Your task to perform on an android device: delete the emails in spam in the gmail app Image 0: 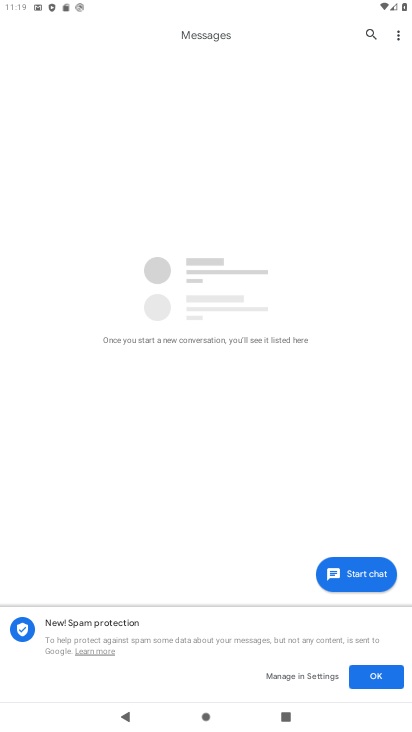
Step 0: press home button
Your task to perform on an android device: delete the emails in spam in the gmail app Image 1: 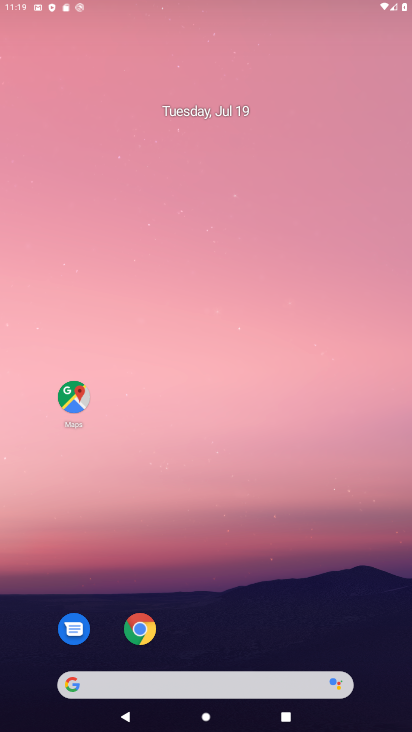
Step 1: drag from (273, 620) to (183, 17)
Your task to perform on an android device: delete the emails in spam in the gmail app Image 2: 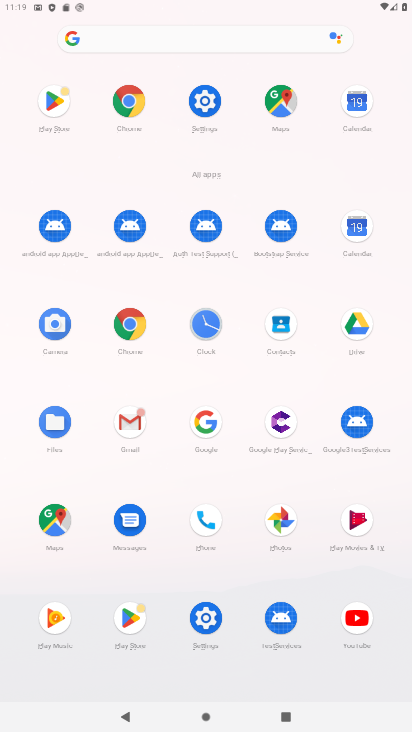
Step 2: click (130, 421)
Your task to perform on an android device: delete the emails in spam in the gmail app Image 3: 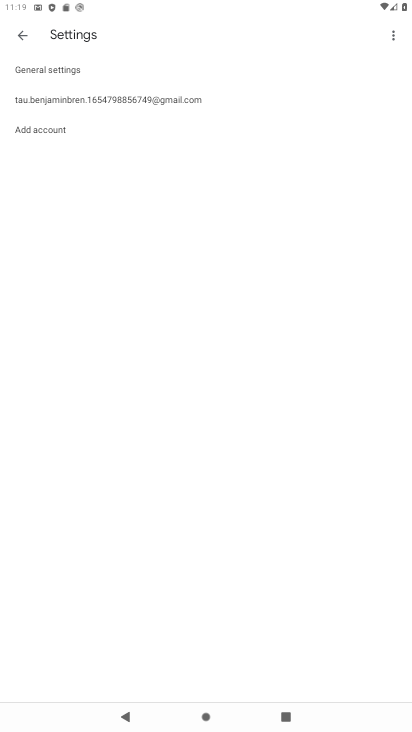
Step 3: click (107, 95)
Your task to perform on an android device: delete the emails in spam in the gmail app Image 4: 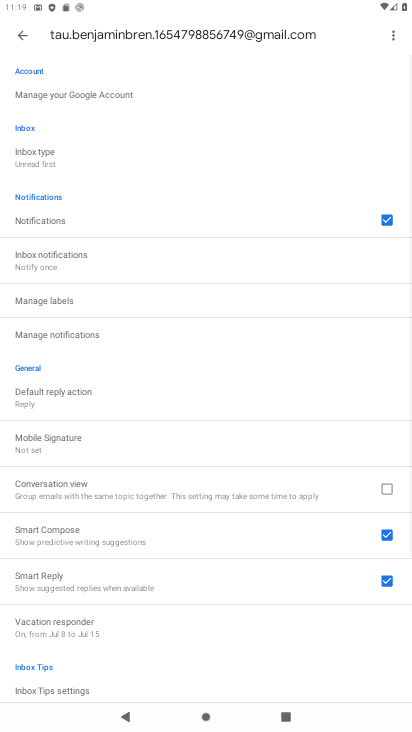
Step 4: click (19, 39)
Your task to perform on an android device: delete the emails in spam in the gmail app Image 5: 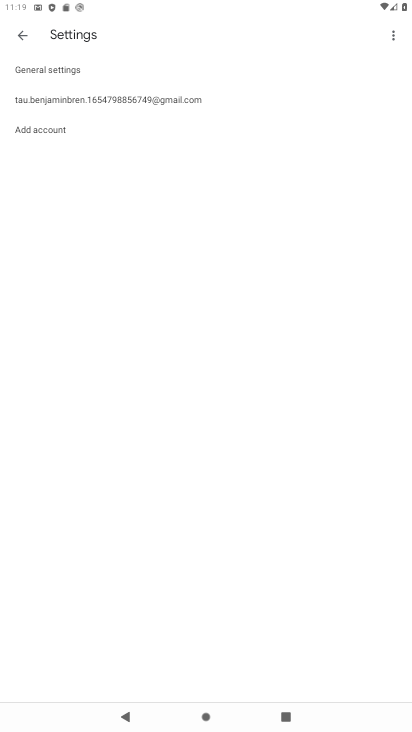
Step 5: click (19, 39)
Your task to perform on an android device: delete the emails in spam in the gmail app Image 6: 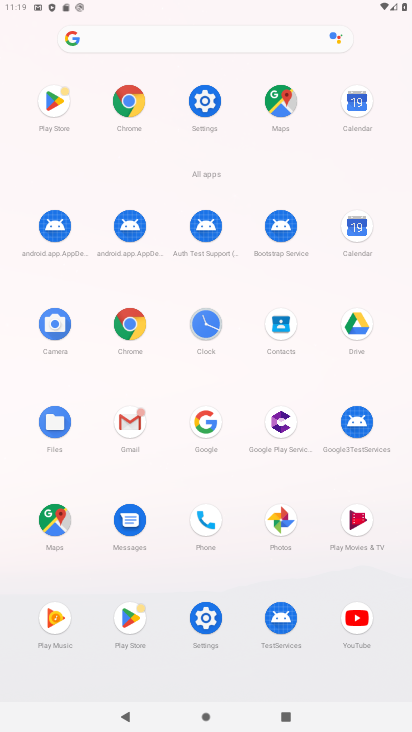
Step 6: click (137, 427)
Your task to perform on an android device: delete the emails in spam in the gmail app Image 7: 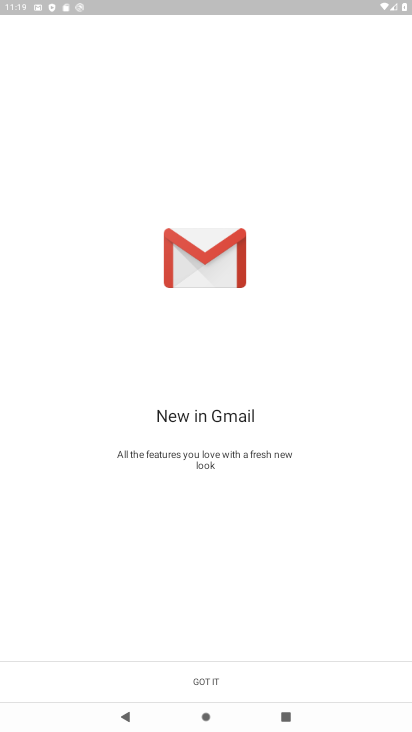
Step 7: click (217, 678)
Your task to perform on an android device: delete the emails in spam in the gmail app Image 8: 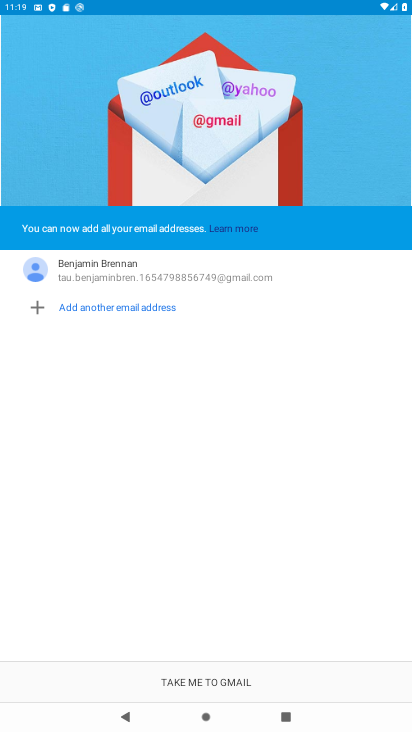
Step 8: click (217, 678)
Your task to perform on an android device: delete the emails in spam in the gmail app Image 9: 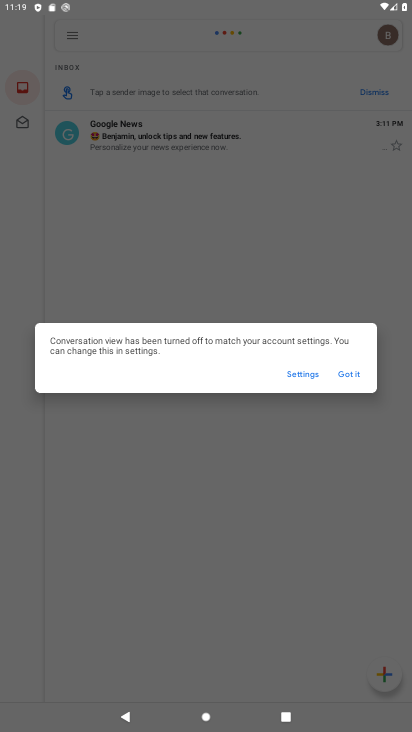
Step 9: click (348, 374)
Your task to perform on an android device: delete the emails in spam in the gmail app Image 10: 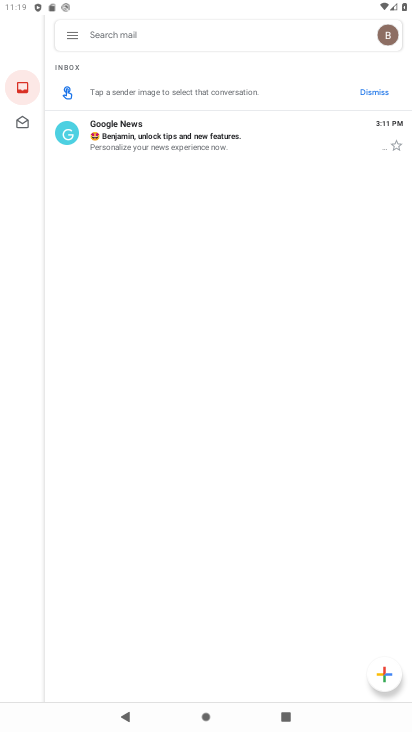
Step 10: click (61, 45)
Your task to perform on an android device: delete the emails in spam in the gmail app Image 11: 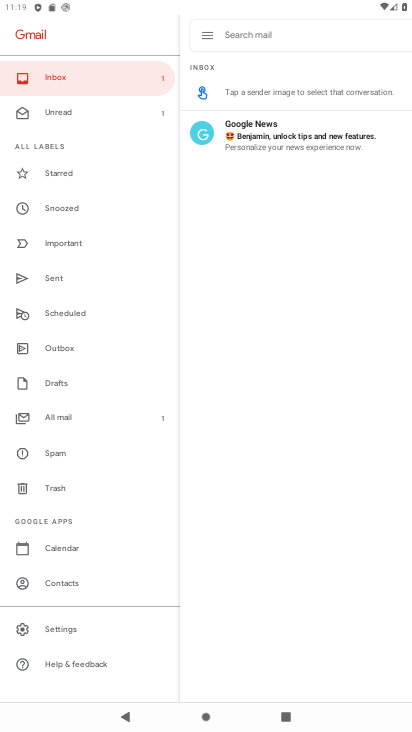
Step 11: click (68, 466)
Your task to perform on an android device: delete the emails in spam in the gmail app Image 12: 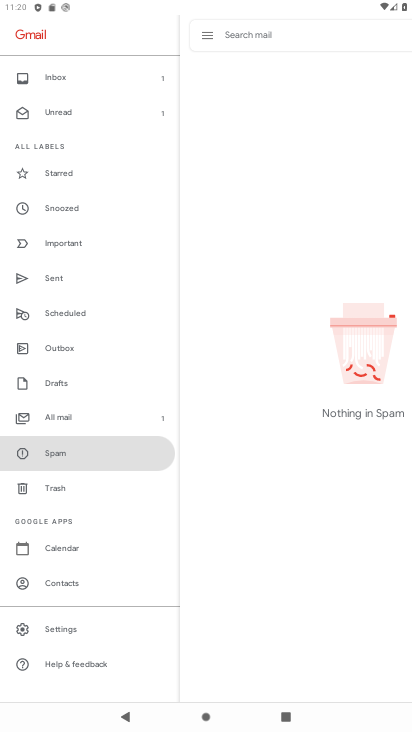
Step 12: task complete